Your task to perform on an android device: Go to network settings Image 0: 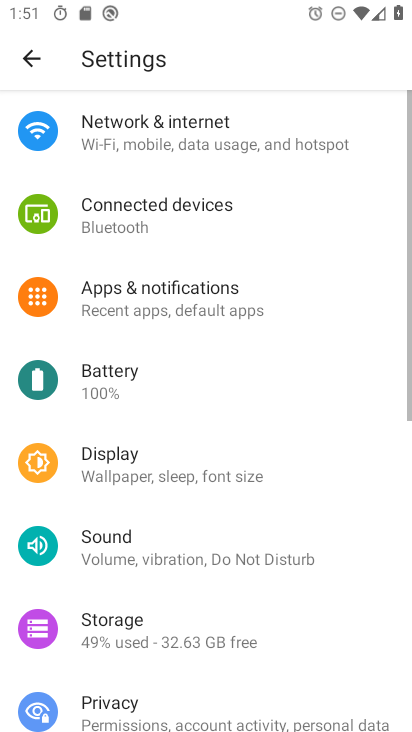
Step 0: click (245, 136)
Your task to perform on an android device: Go to network settings Image 1: 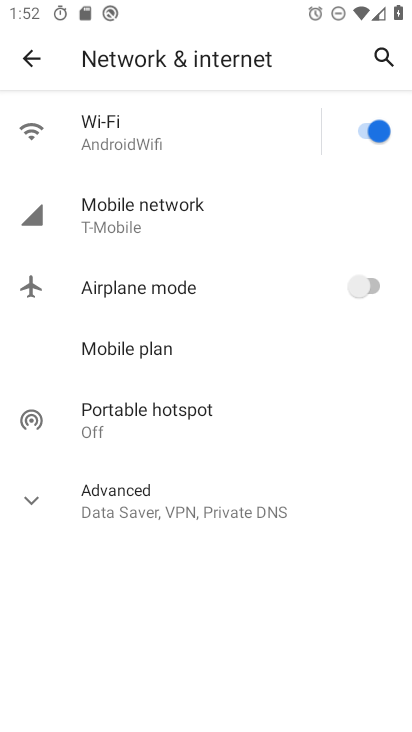
Step 1: task complete